Your task to perform on an android device: Go to calendar. Show me events next week Image 0: 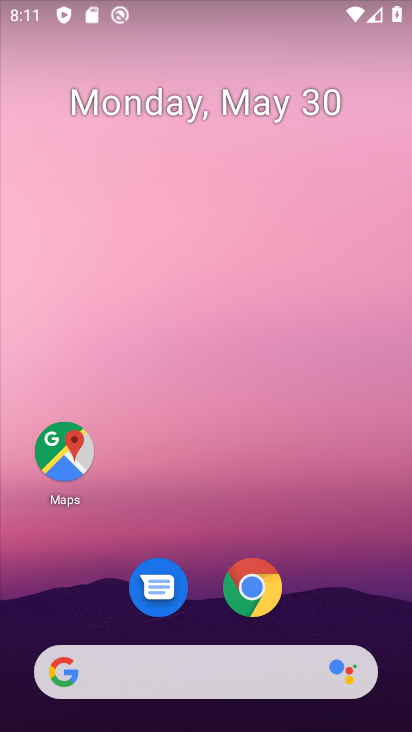
Step 0: drag from (203, 597) to (258, 37)
Your task to perform on an android device: Go to calendar. Show me events next week Image 1: 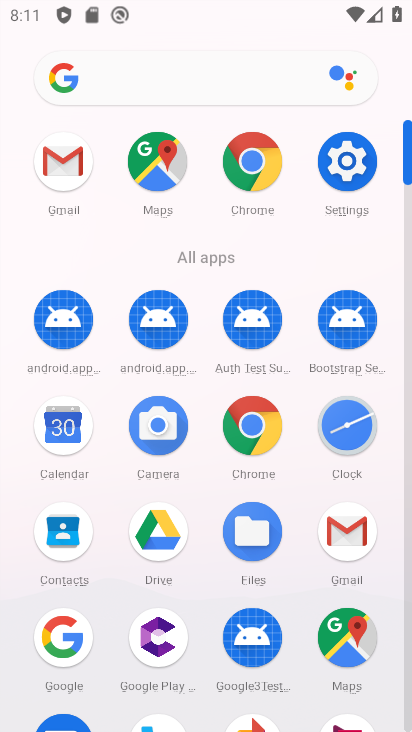
Step 1: click (61, 428)
Your task to perform on an android device: Go to calendar. Show me events next week Image 2: 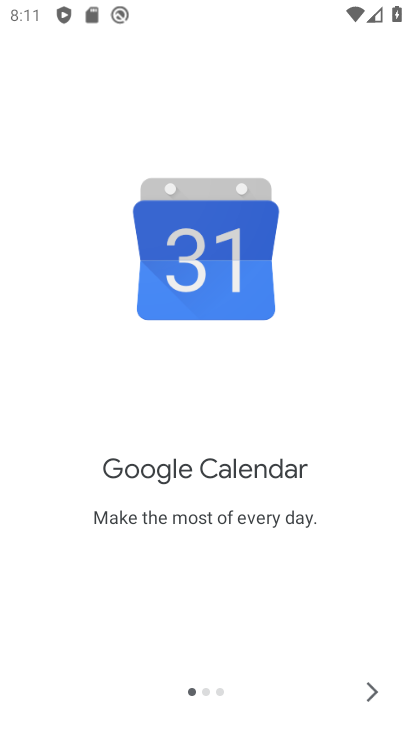
Step 2: click (376, 691)
Your task to perform on an android device: Go to calendar. Show me events next week Image 3: 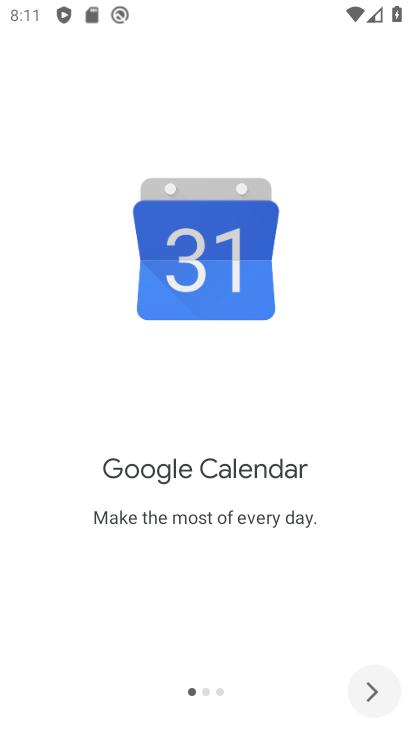
Step 3: click (376, 691)
Your task to perform on an android device: Go to calendar. Show me events next week Image 4: 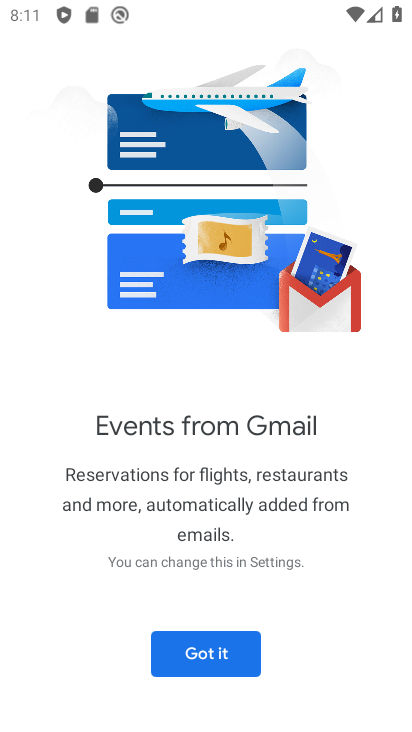
Step 4: click (246, 663)
Your task to perform on an android device: Go to calendar. Show me events next week Image 5: 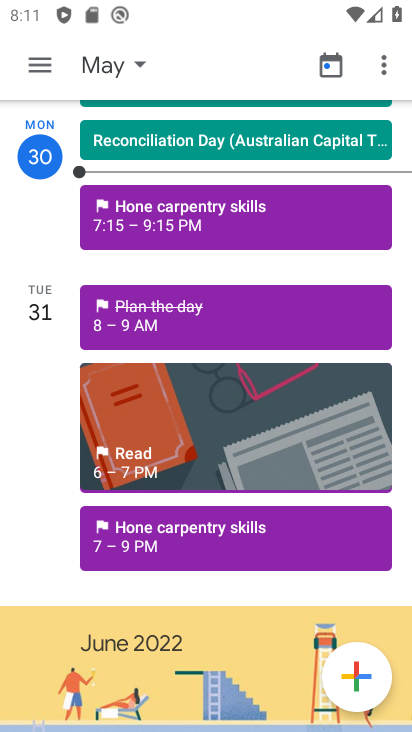
Step 5: click (138, 62)
Your task to perform on an android device: Go to calendar. Show me events next week Image 6: 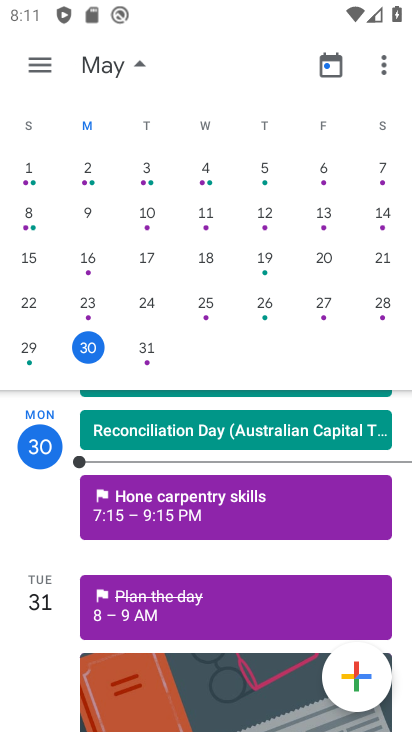
Step 6: drag from (344, 307) to (43, 290)
Your task to perform on an android device: Go to calendar. Show me events next week Image 7: 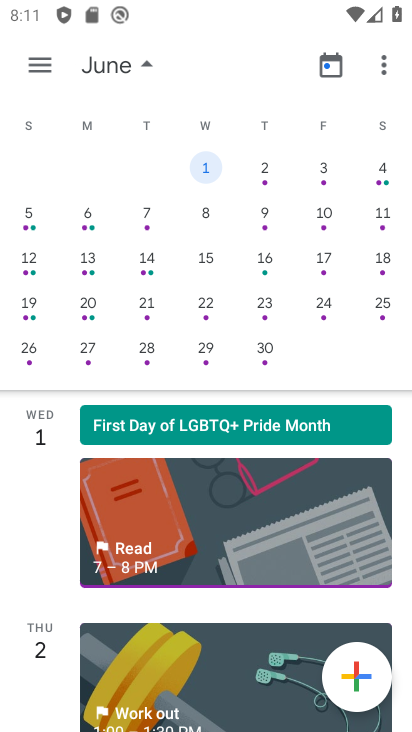
Step 7: click (40, 68)
Your task to perform on an android device: Go to calendar. Show me events next week Image 8: 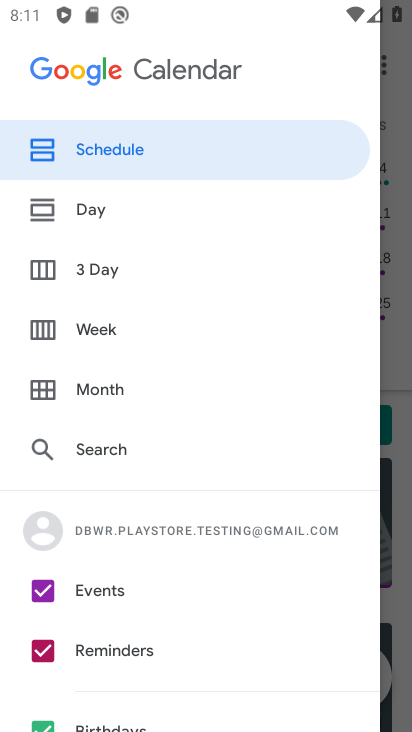
Step 8: click (49, 639)
Your task to perform on an android device: Go to calendar. Show me events next week Image 9: 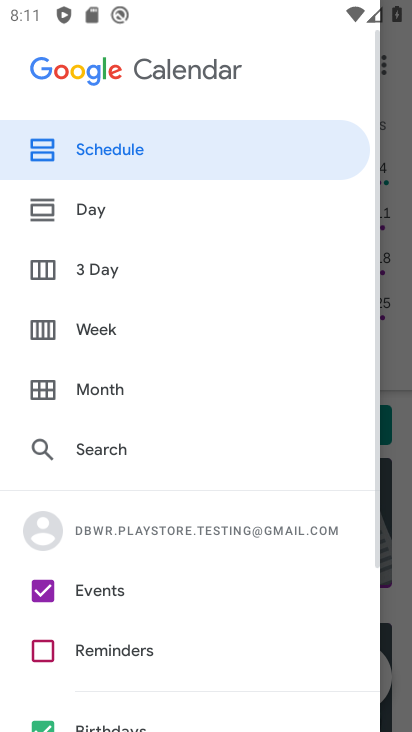
Step 9: drag from (110, 659) to (133, 362)
Your task to perform on an android device: Go to calendar. Show me events next week Image 10: 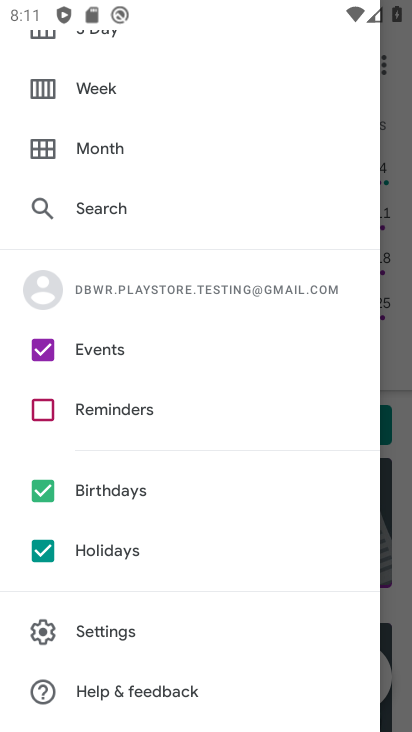
Step 10: click (44, 498)
Your task to perform on an android device: Go to calendar. Show me events next week Image 11: 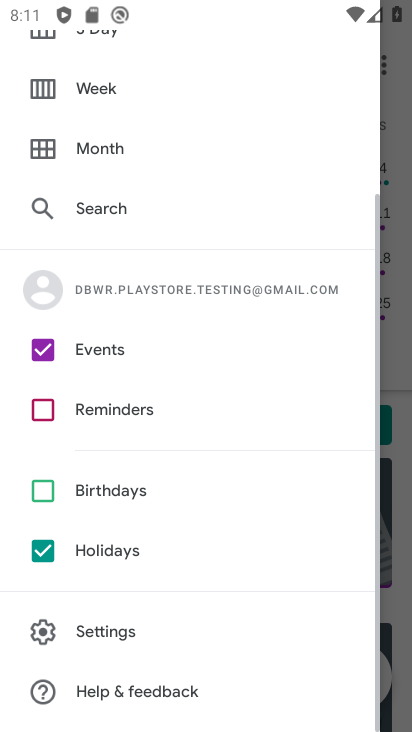
Step 11: click (34, 555)
Your task to perform on an android device: Go to calendar. Show me events next week Image 12: 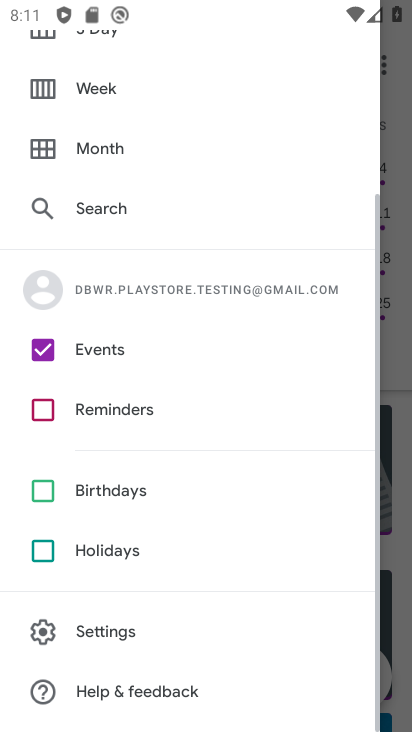
Step 12: click (122, 74)
Your task to perform on an android device: Go to calendar. Show me events next week Image 13: 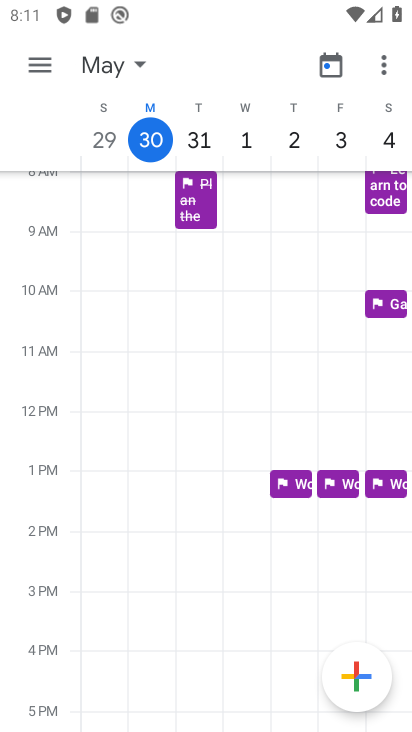
Step 13: task complete